Your task to perform on an android device: delete a single message in the gmail app Image 0: 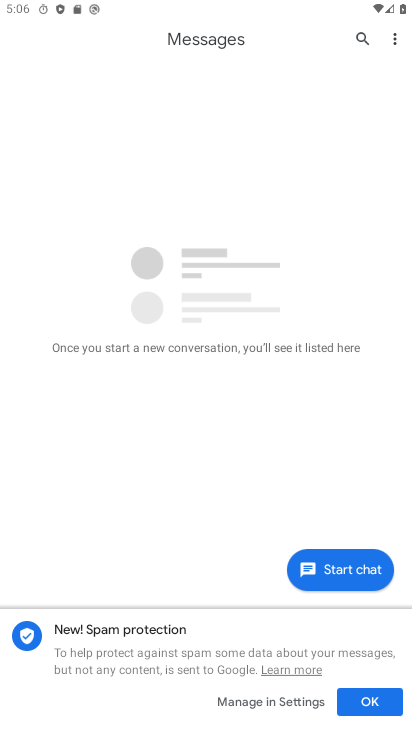
Step 0: press home button
Your task to perform on an android device: delete a single message in the gmail app Image 1: 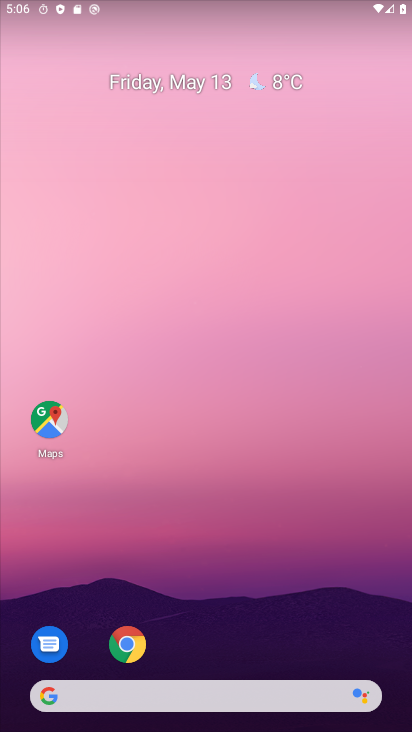
Step 1: drag from (137, 577) to (178, 182)
Your task to perform on an android device: delete a single message in the gmail app Image 2: 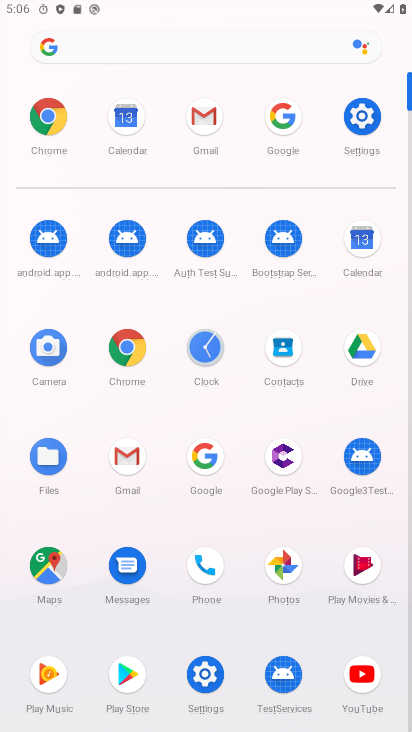
Step 2: click (204, 124)
Your task to perform on an android device: delete a single message in the gmail app Image 3: 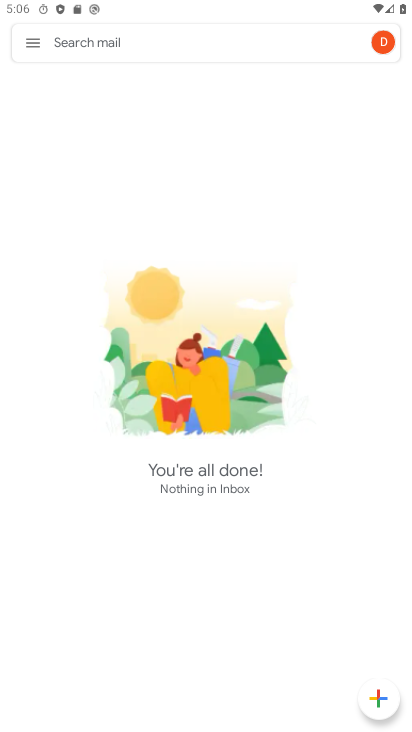
Step 3: click (33, 62)
Your task to perform on an android device: delete a single message in the gmail app Image 4: 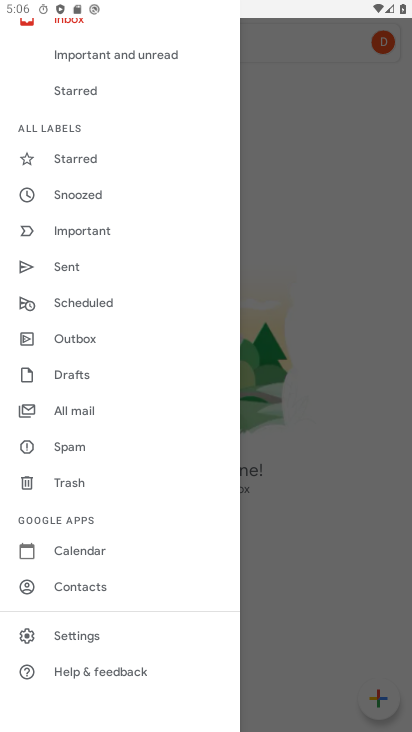
Step 4: click (108, 414)
Your task to perform on an android device: delete a single message in the gmail app Image 5: 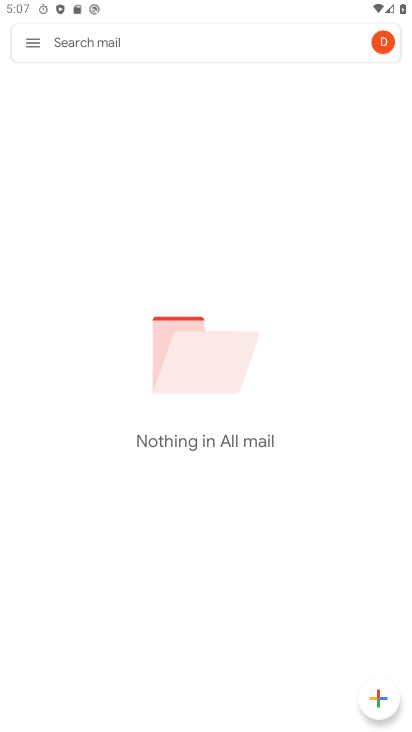
Step 5: task complete